Your task to perform on an android device: Show me recent news Image 0: 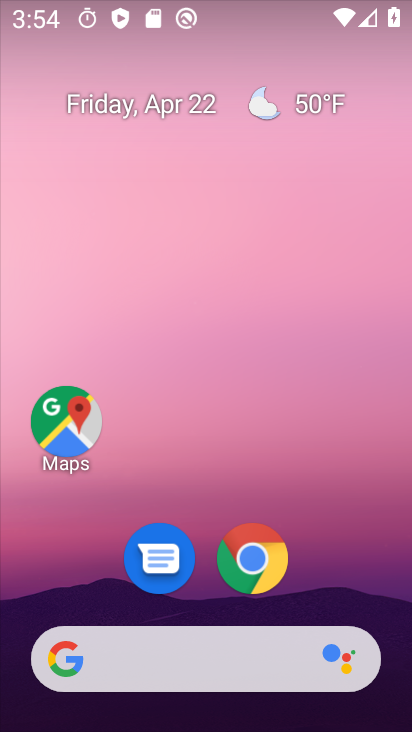
Step 0: drag from (326, 584) to (246, 92)
Your task to perform on an android device: Show me recent news Image 1: 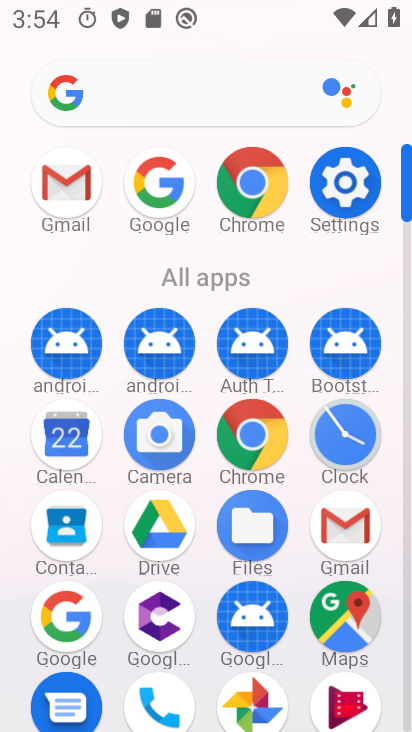
Step 1: drag from (200, 572) to (243, 227)
Your task to perform on an android device: Show me recent news Image 2: 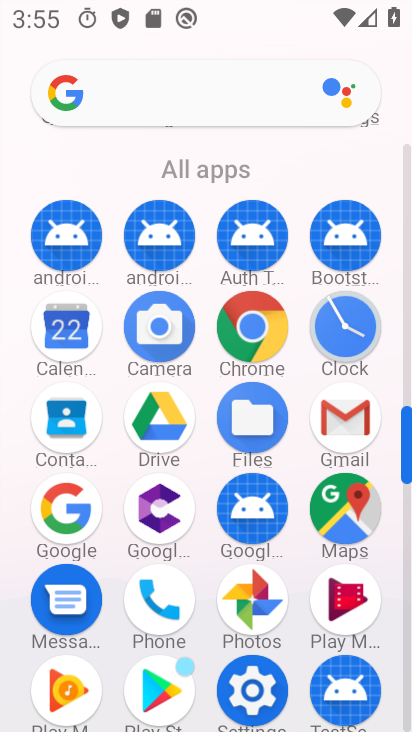
Step 2: drag from (283, 559) to (284, 306)
Your task to perform on an android device: Show me recent news Image 3: 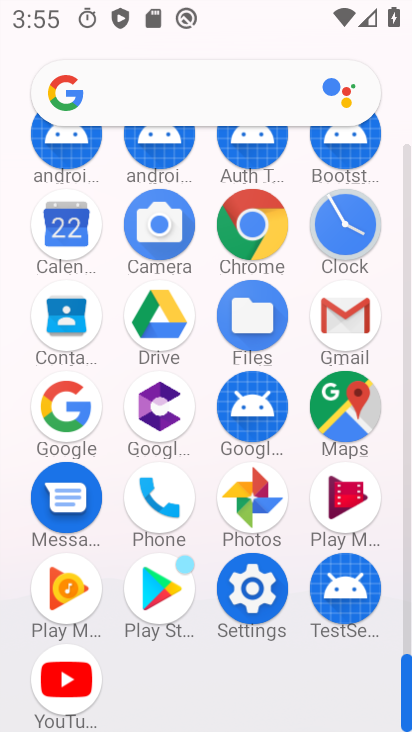
Step 3: drag from (289, 243) to (287, 514)
Your task to perform on an android device: Show me recent news Image 4: 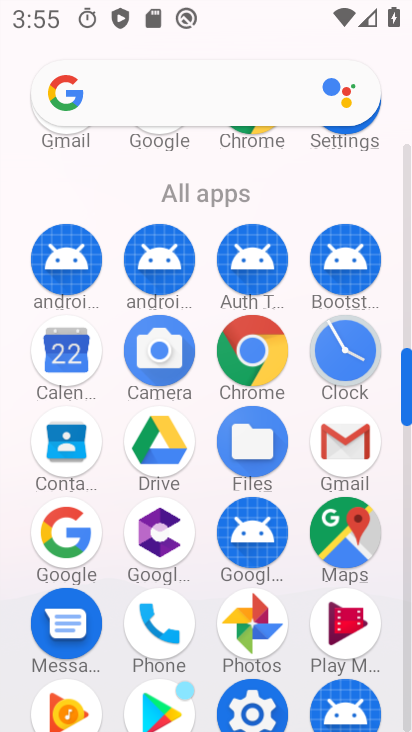
Step 4: drag from (204, 662) to (202, 390)
Your task to perform on an android device: Show me recent news Image 5: 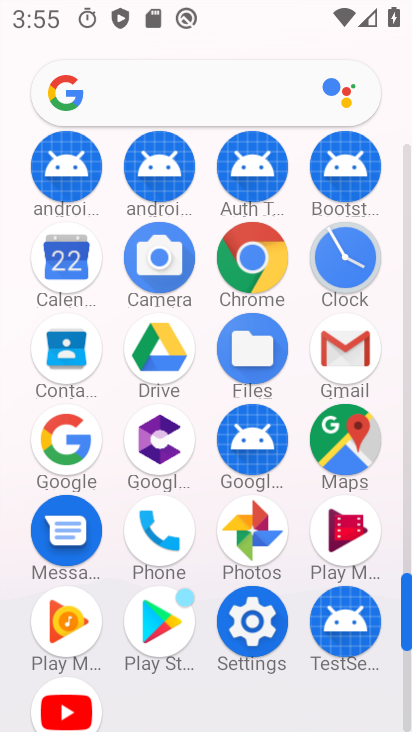
Step 5: drag from (203, 484) to (223, 303)
Your task to perform on an android device: Show me recent news Image 6: 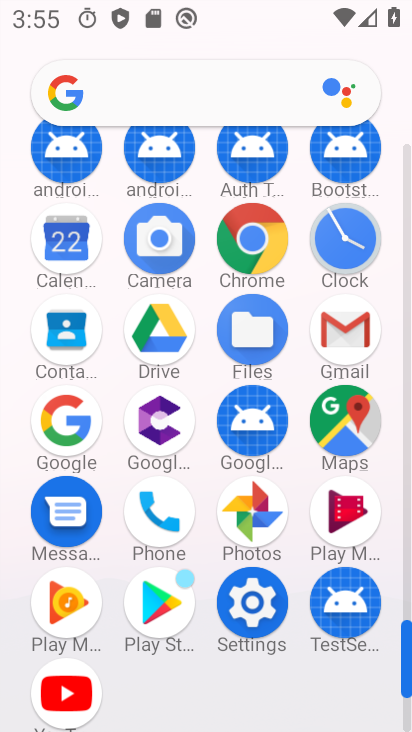
Step 6: drag from (209, 332) to (191, 526)
Your task to perform on an android device: Show me recent news Image 7: 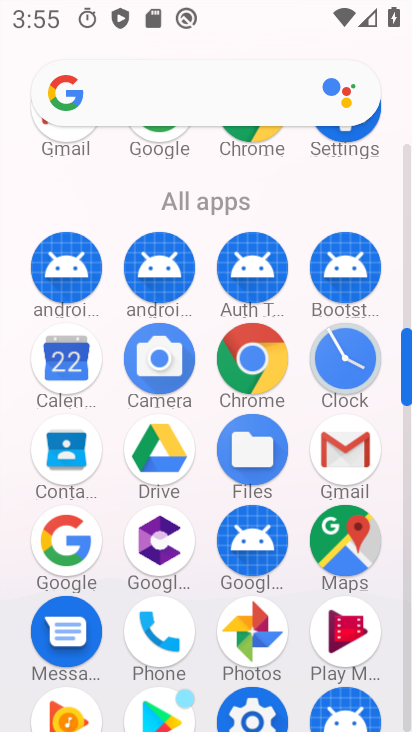
Step 7: drag from (201, 393) to (160, 617)
Your task to perform on an android device: Show me recent news Image 8: 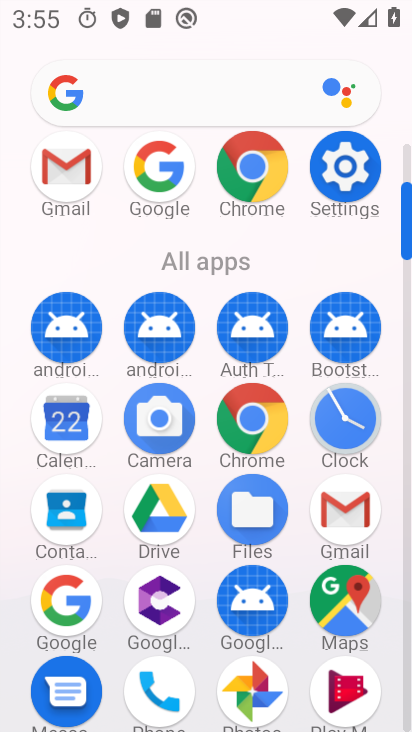
Step 8: click (158, 204)
Your task to perform on an android device: Show me recent news Image 9: 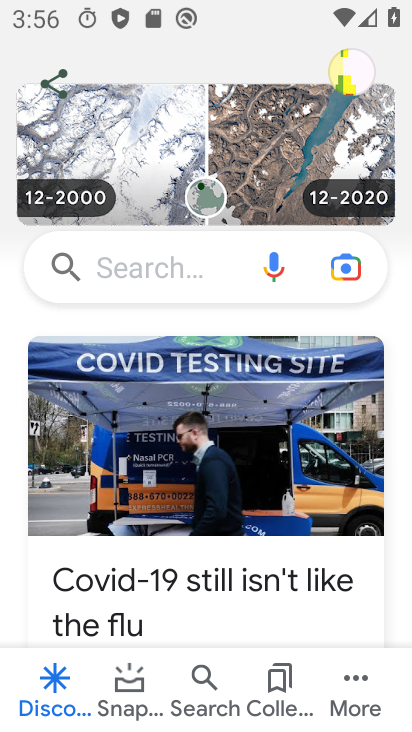
Step 9: task complete